Your task to perform on an android device: change the clock display to analog Image 0: 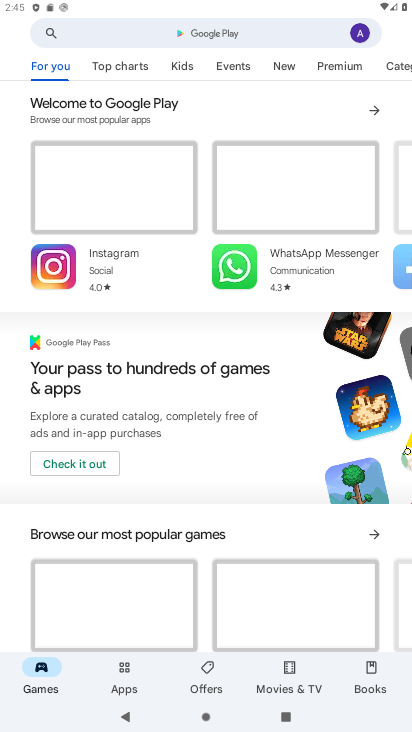
Step 0: press home button
Your task to perform on an android device: change the clock display to analog Image 1: 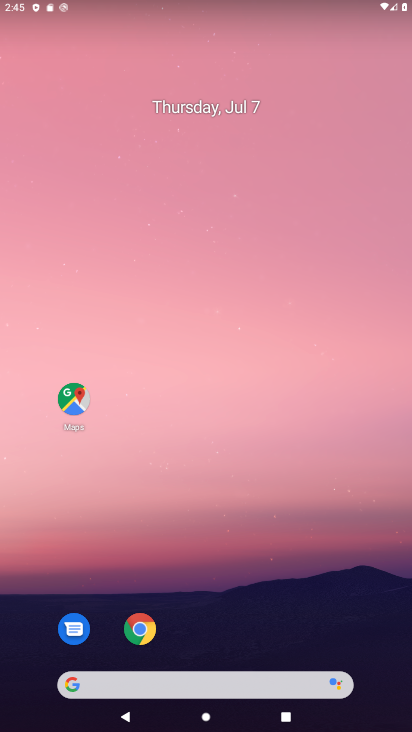
Step 1: drag from (235, 525) to (304, 111)
Your task to perform on an android device: change the clock display to analog Image 2: 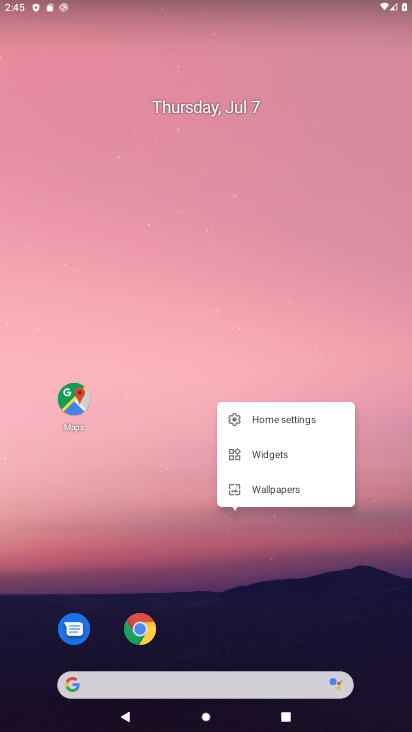
Step 2: drag from (183, 554) to (267, 81)
Your task to perform on an android device: change the clock display to analog Image 3: 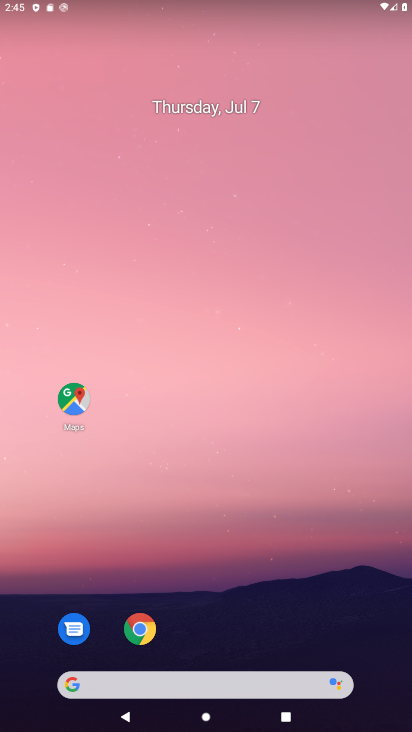
Step 3: drag from (250, 660) to (324, 114)
Your task to perform on an android device: change the clock display to analog Image 4: 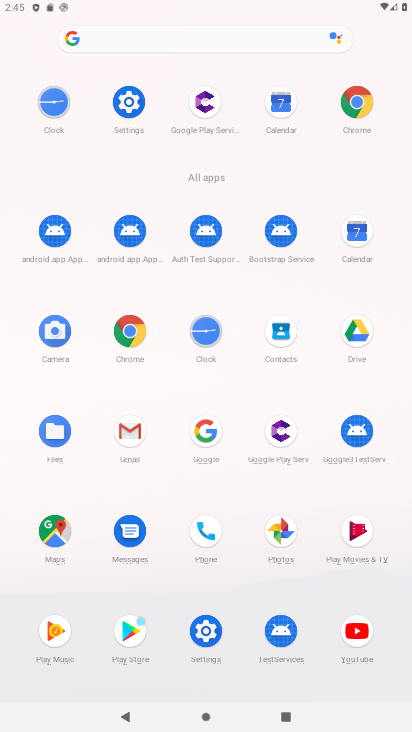
Step 4: click (199, 351)
Your task to perform on an android device: change the clock display to analog Image 5: 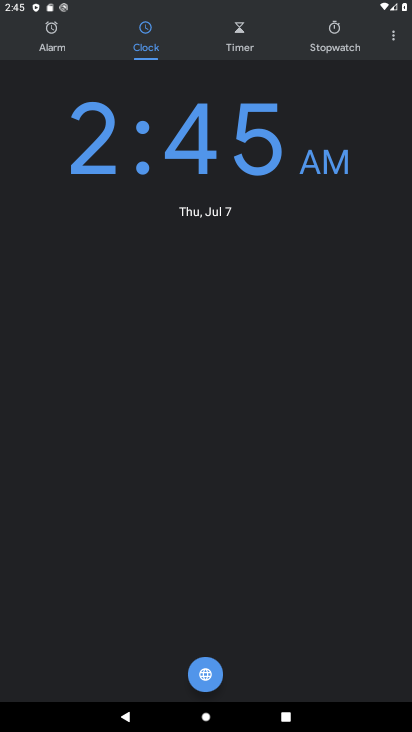
Step 5: click (389, 33)
Your task to perform on an android device: change the clock display to analog Image 6: 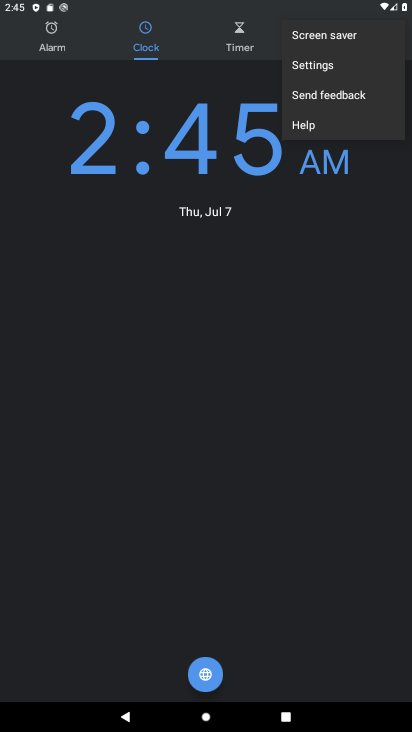
Step 6: click (367, 72)
Your task to perform on an android device: change the clock display to analog Image 7: 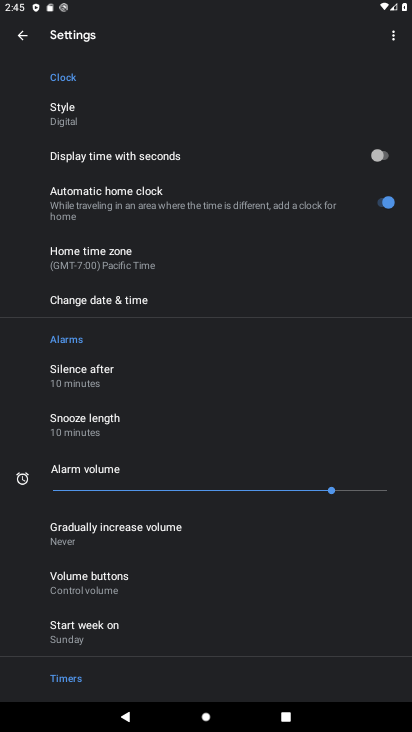
Step 7: click (122, 125)
Your task to perform on an android device: change the clock display to analog Image 8: 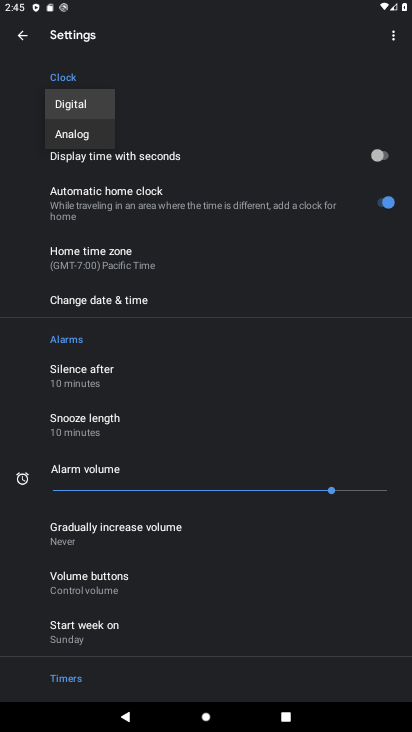
Step 8: click (70, 143)
Your task to perform on an android device: change the clock display to analog Image 9: 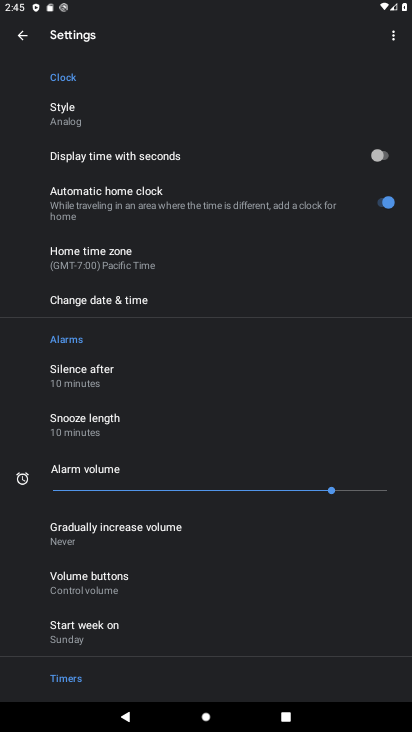
Step 9: task complete